Your task to perform on an android device: refresh tabs in the chrome app Image 0: 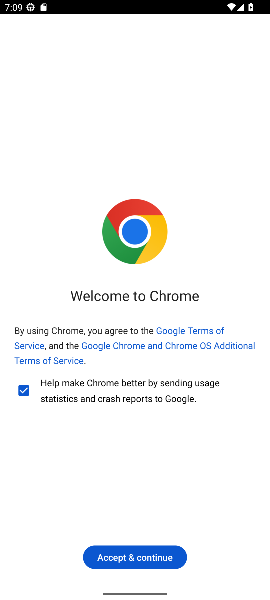
Step 0: click (167, 556)
Your task to perform on an android device: refresh tabs in the chrome app Image 1: 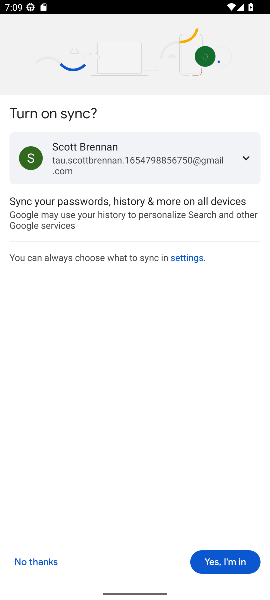
Step 1: click (250, 561)
Your task to perform on an android device: refresh tabs in the chrome app Image 2: 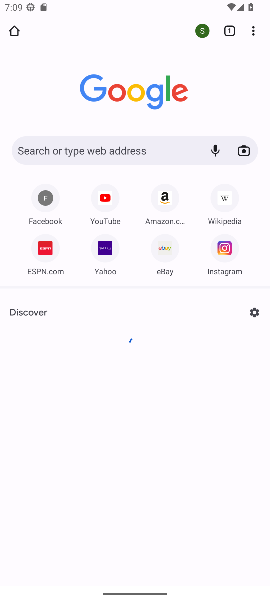
Step 2: click (258, 31)
Your task to perform on an android device: refresh tabs in the chrome app Image 3: 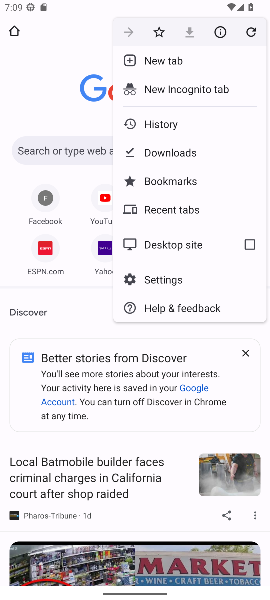
Step 3: click (252, 35)
Your task to perform on an android device: refresh tabs in the chrome app Image 4: 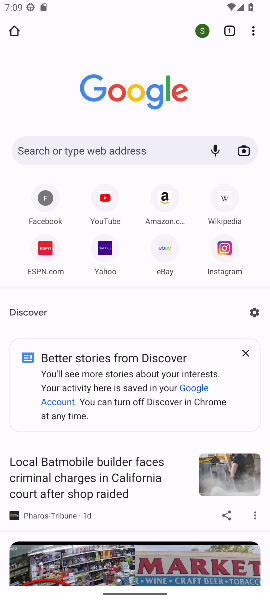
Step 4: task complete